Your task to perform on an android device: toggle show notifications on the lock screen Image 0: 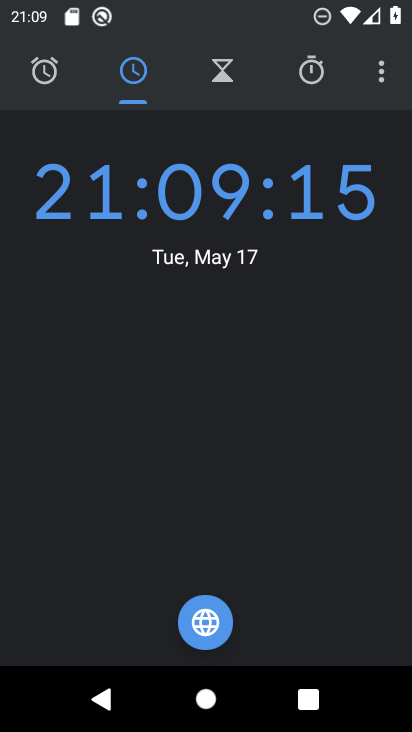
Step 0: press home button
Your task to perform on an android device: toggle show notifications on the lock screen Image 1: 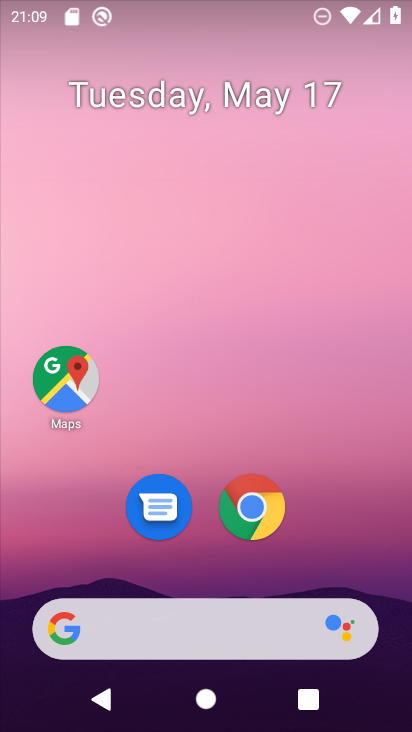
Step 1: drag from (352, 563) to (320, 0)
Your task to perform on an android device: toggle show notifications on the lock screen Image 2: 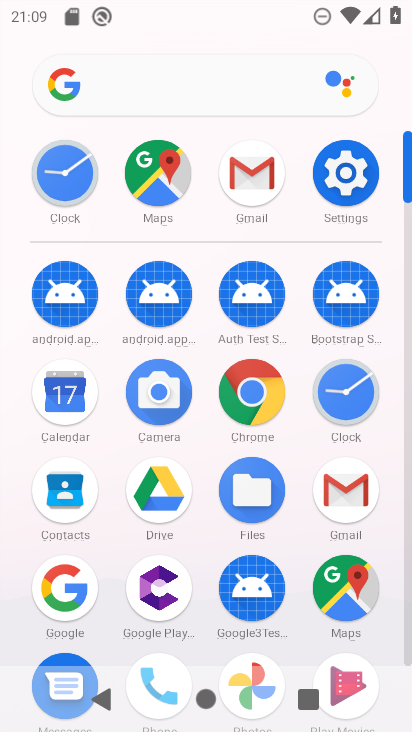
Step 2: click (328, 195)
Your task to perform on an android device: toggle show notifications on the lock screen Image 3: 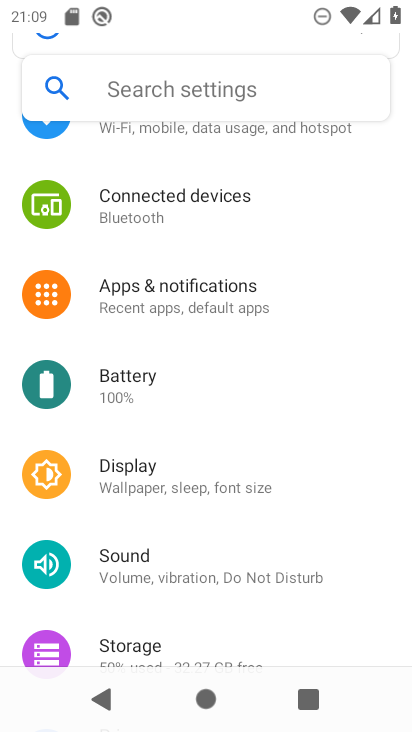
Step 3: click (139, 297)
Your task to perform on an android device: toggle show notifications on the lock screen Image 4: 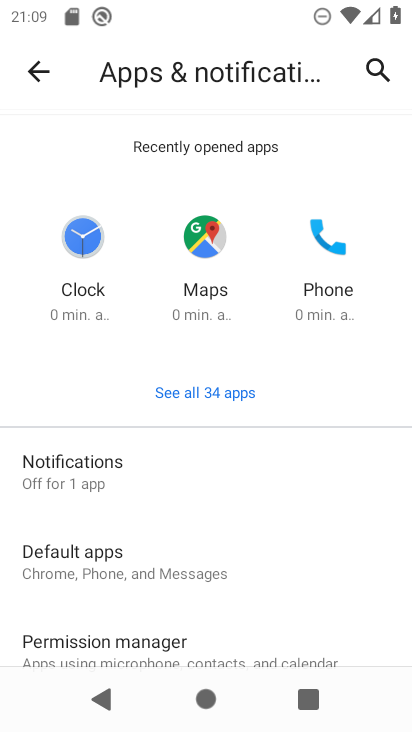
Step 4: click (87, 453)
Your task to perform on an android device: toggle show notifications on the lock screen Image 5: 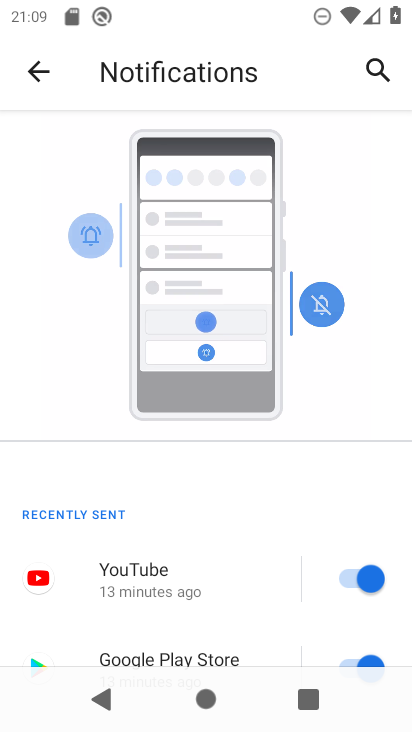
Step 5: drag from (255, 637) to (99, 11)
Your task to perform on an android device: toggle show notifications on the lock screen Image 6: 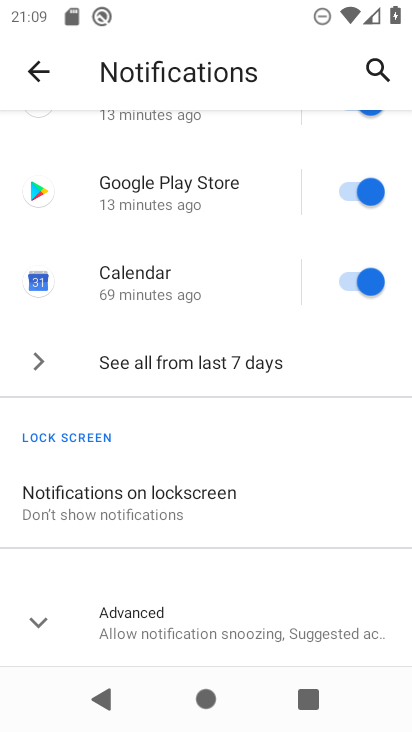
Step 6: click (97, 496)
Your task to perform on an android device: toggle show notifications on the lock screen Image 7: 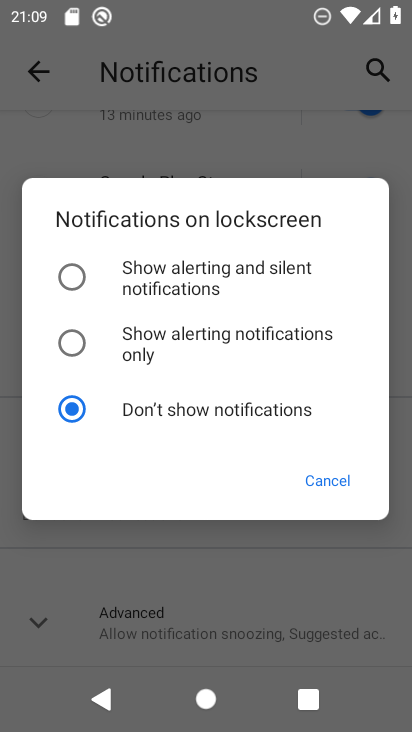
Step 7: click (60, 275)
Your task to perform on an android device: toggle show notifications on the lock screen Image 8: 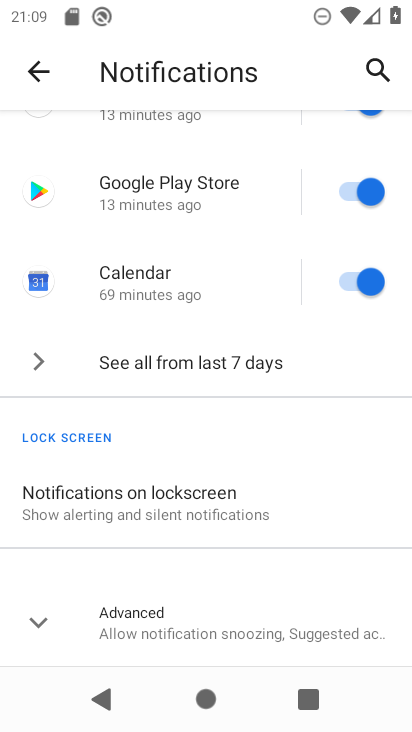
Step 8: task complete